Your task to perform on an android device: Open Google Chrome and click the shortcut for Amazon.com Image 0: 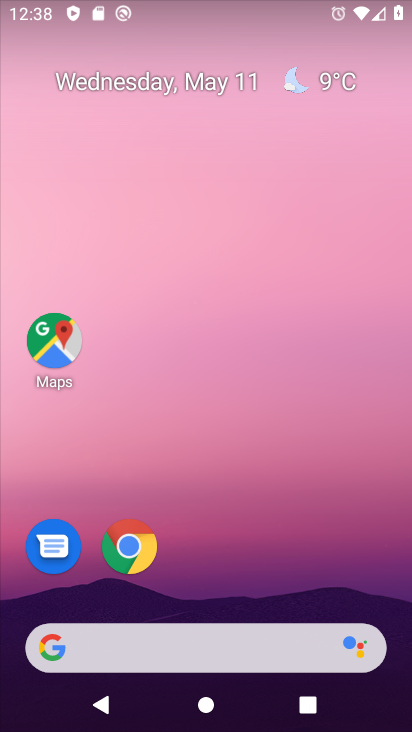
Step 0: drag from (271, 305) to (314, 88)
Your task to perform on an android device: Open Google Chrome and click the shortcut for Amazon.com Image 1: 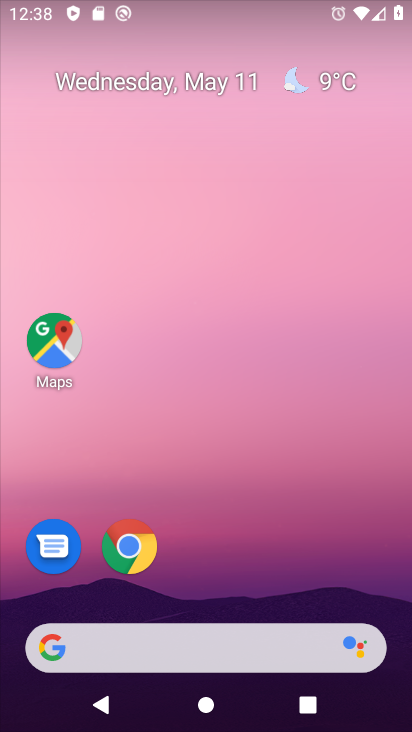
Step 1: drag from (176, 516) to (288, 118)
Your task to perform on an android device: Open Google Chrome and click the shortcut for Amazon.com Image 2: 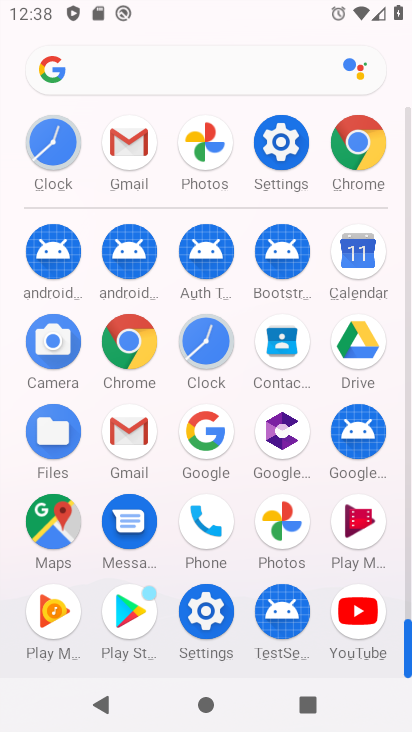
Step 2: click (130, 348)
Your task to perform on an android device: Open Google Chrome and click the shortcut for Amazon.com Image 3: 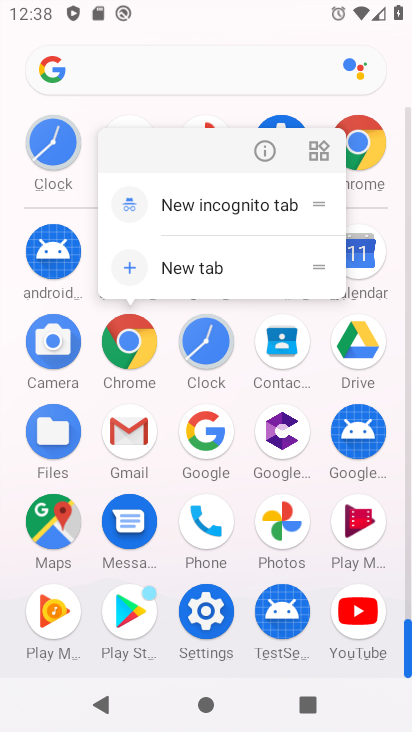
Step 3: click (162, 265)
Your task to perform on an android device: Open Google Chrome and click the shortcut for Amazon.com Image 4: 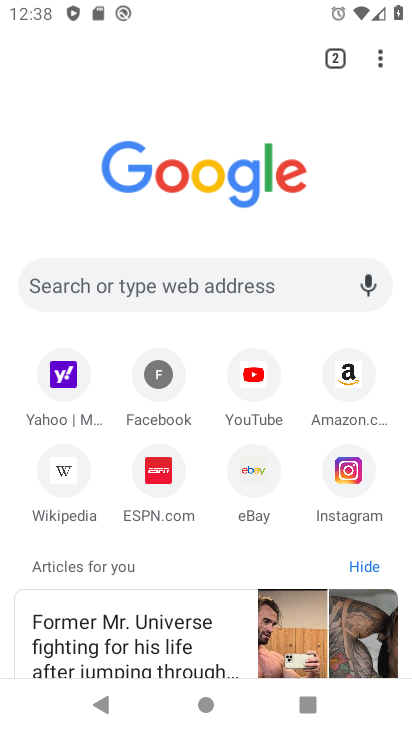
Step 4: click (342, 387)
Your task to perform on an android device: Open Google Chrome and click the shortcut for Amazon.com Image 5: 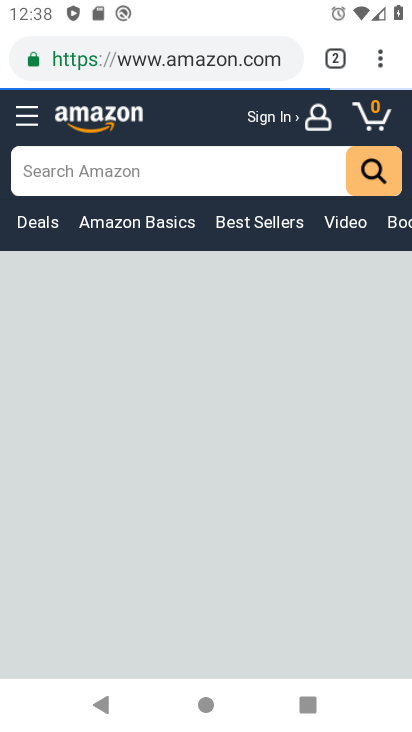
Step 5: task complete